Your task to perform on an android device: Is it going to rain today? Image 0: 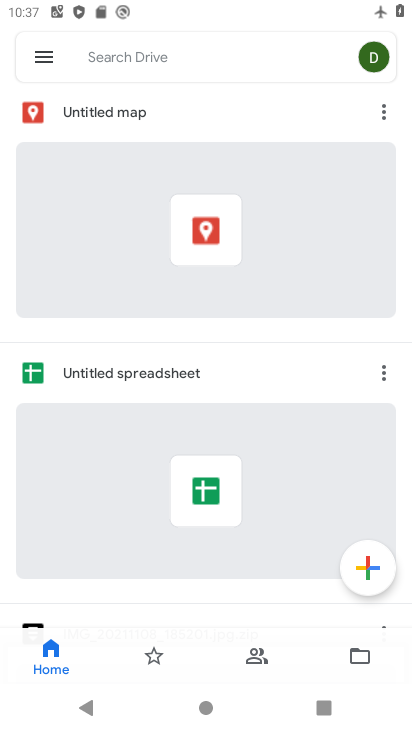
Step 0: press home button
Your task to perform on an android device: Is it going to rain today? Image 1: 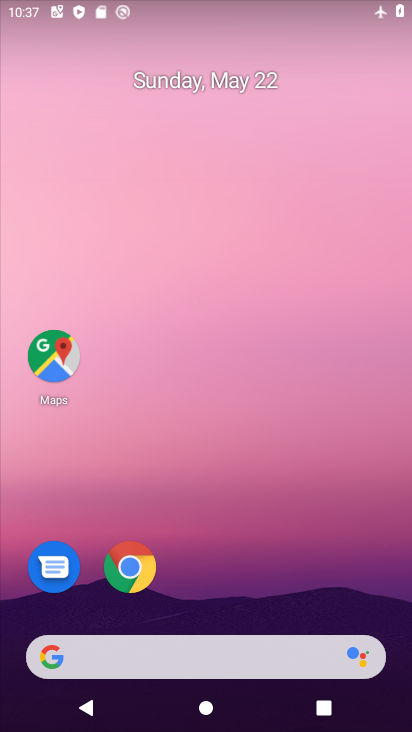
Step 1: drag from (356, 609) to (293, 91)
Your task to perform on an android device: Is it going to rain today? Image 2: 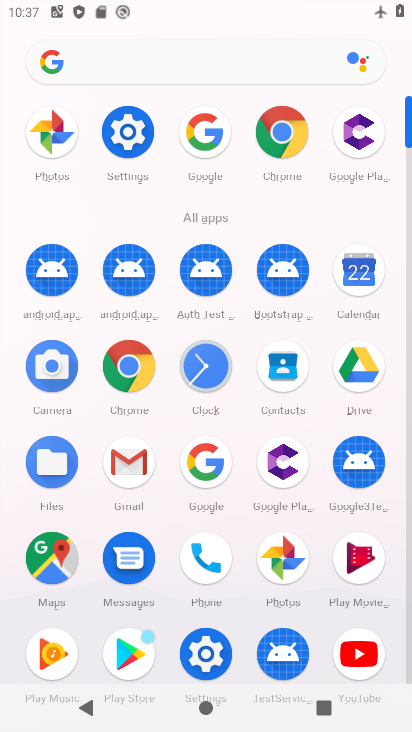
Step 2: click (129, 390)
Your task to perform on an android device: Is it going to rain today? Image 3: 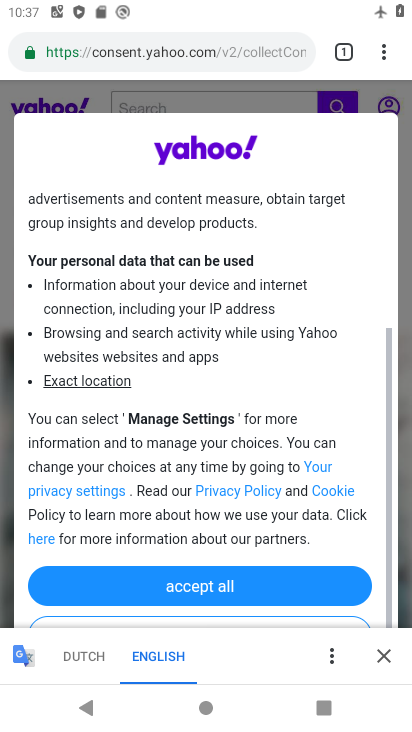
Step 3: click (251, 50)
Your task to perform on an android device: Is it going to rain today? Image 4: 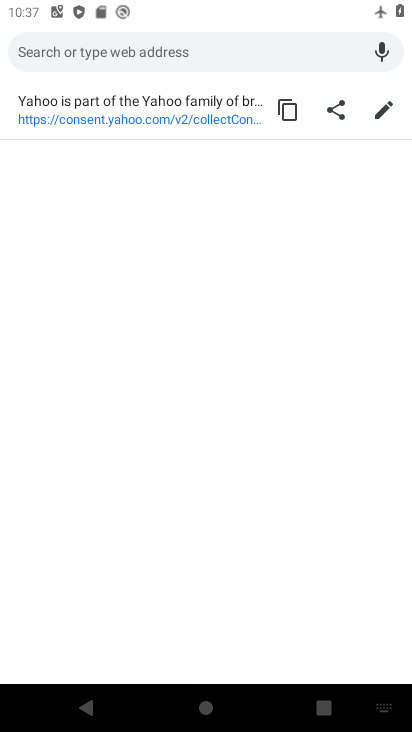
Step 4: type "is it going to rain today"
Your task to perform on an android device: Is it going to rain today? Image 5: 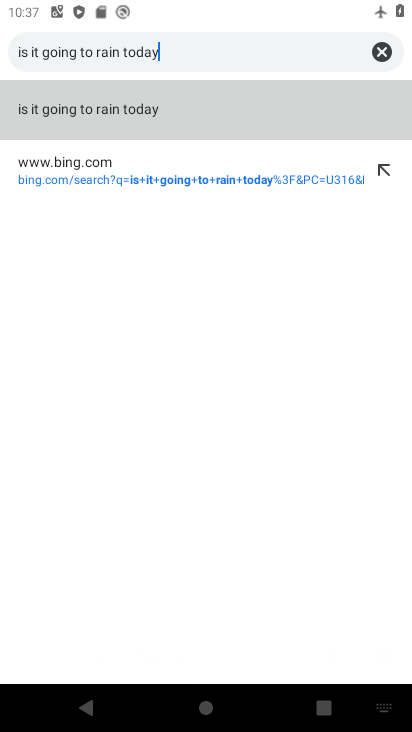
Step 5: click (125, 127)
Your task to perform on an android device: Is it going to rain today? Image 6: 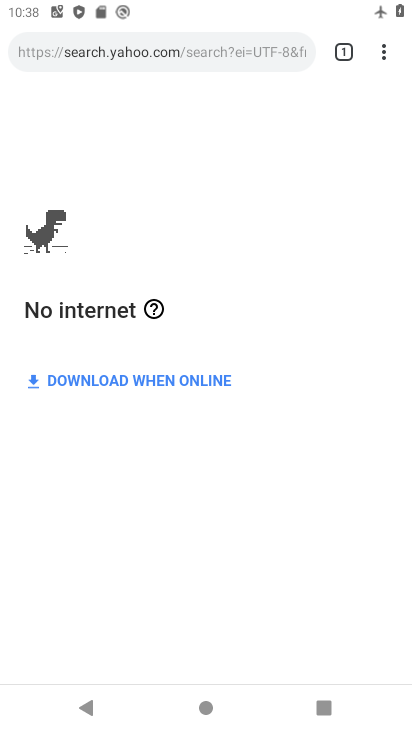
Step 6: task complete